Your task to perform on an android device: Clear the shopping cart on bestbuy. Search for "razer huntsman" on bestbuy, select the first entry, add it to the cart, then select checkout. Image 0: 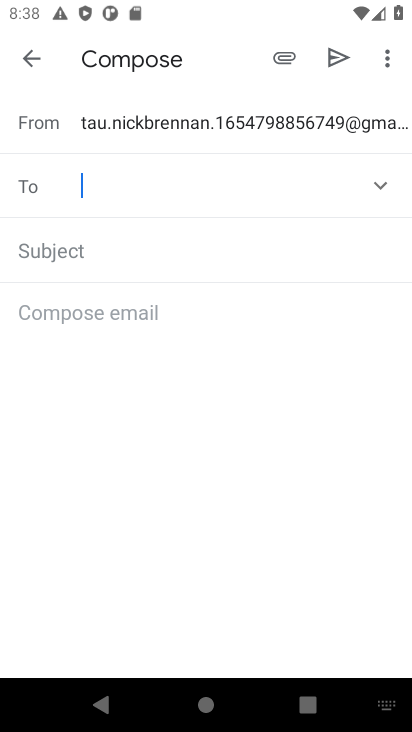
Step 0: press home button
Your task to perform on an android device: Clear the shopping cart on bestbuy. Search for "razer huntsman" on bestbuy, select the first entry, add it to the cart, then select checkout. Image 1: 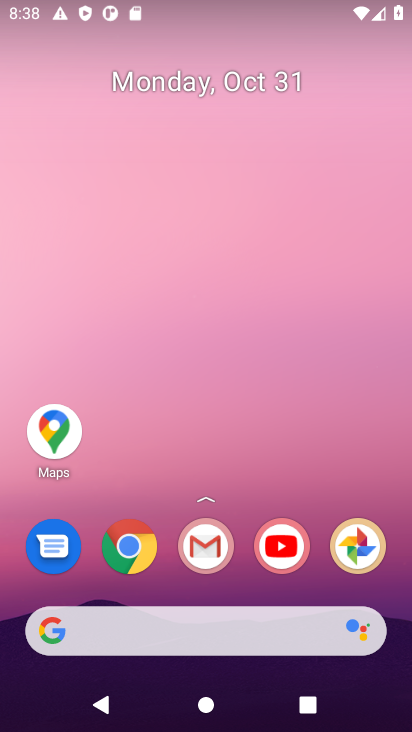
Step 1: click (133, 543)
Your task to perform on an android device: Clear the shopping cart on bestbuy. Search for "razer huntsman" on bestbuy, select the first entry, add it to the cart, then select checkout. Image 2: 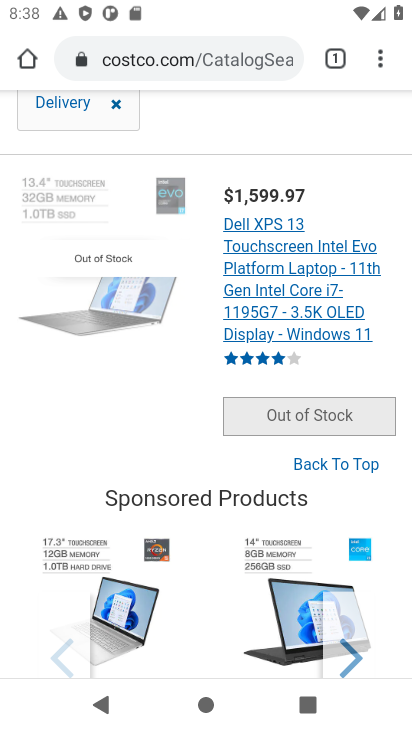
Step 2: click (186, 64)
Your task to perform on an android device: Clear the shopping cart on bestbuy. Search for "razer huntsman" on bestbuy, select the first entry, add it to the cart, then select checkout. Image 3: 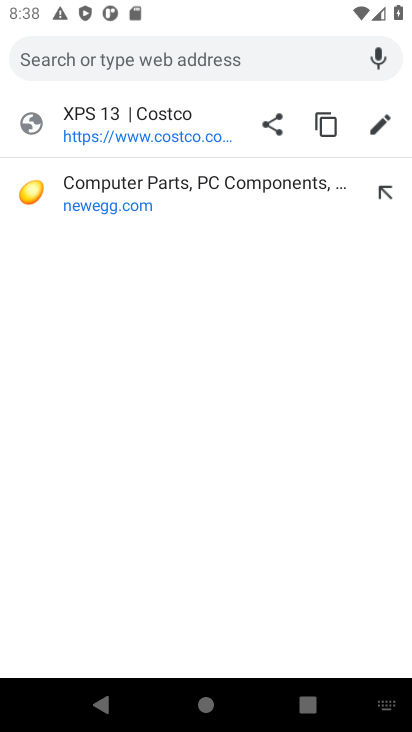
Step 3: type "bestbuy."
Your task to perform on an android device: Clear the shopping cart on bestbuy. Search for "razer huntsman" on bestbuy, select the first entry, add it to the cart, then select checkout. Image 4: 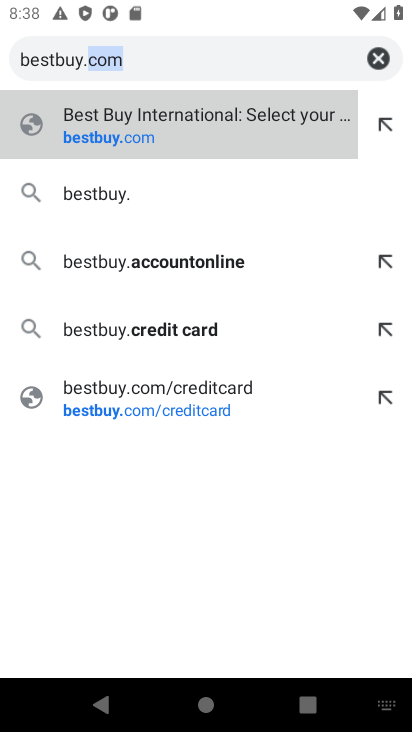
Step 4: press enter
Your task to perform on an android device: Clear the shopping cart on bestbuy. Search for "razer huntsman" on bestbuy, select the first entry, add it to the cart, then select checkout. Image 5: 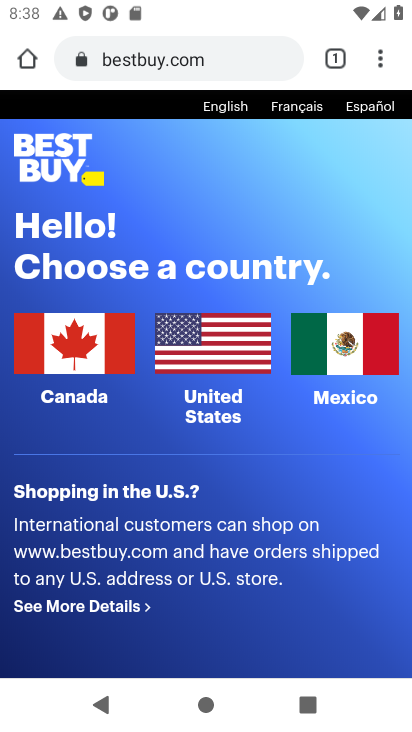
Step 5: click (216, 365)
Your task to perform on an android device: Clear the shopping cart on bestbuy. Search for "razer huntsman" on bestbuy, select the first entry, add it to the cart, then select checkout. Image 6: 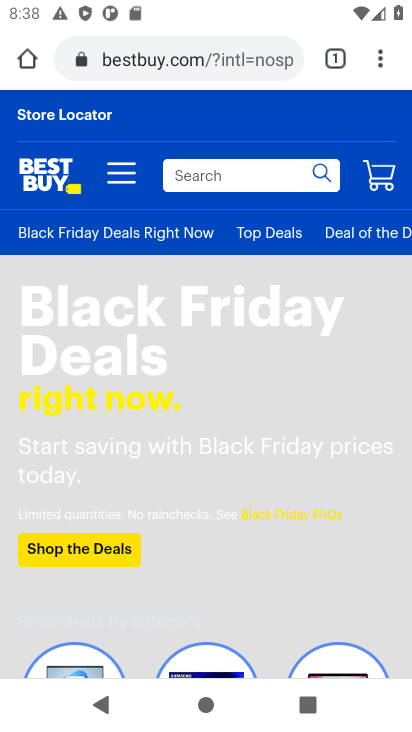
Step 6: drag from (227, 566) to (204, 343)
Your task to perform on an android device: Clear the shopping cart on bestbuy. Search for "razer huntsman" on bestbuy, select the first entry, add it to the cart, then select checkout. Image 7: 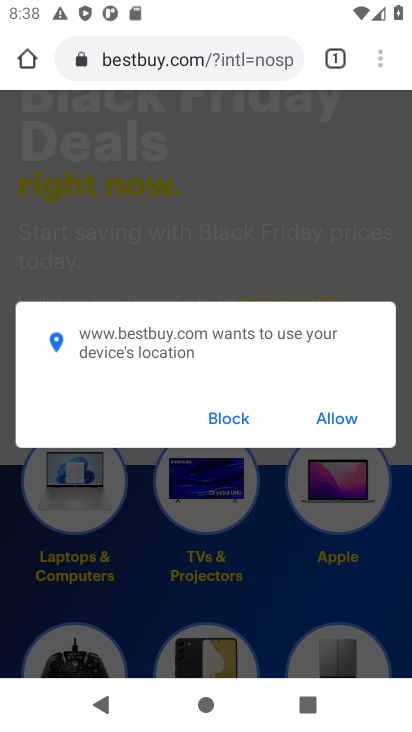
Step 7: click (222, 421)
Your task to perform on an android device: Clear the shopping cart on bestbuy. Search for "razer huntsman" on bestbuy, select the first entry, add it to the cart, then select checkout. Image 8: 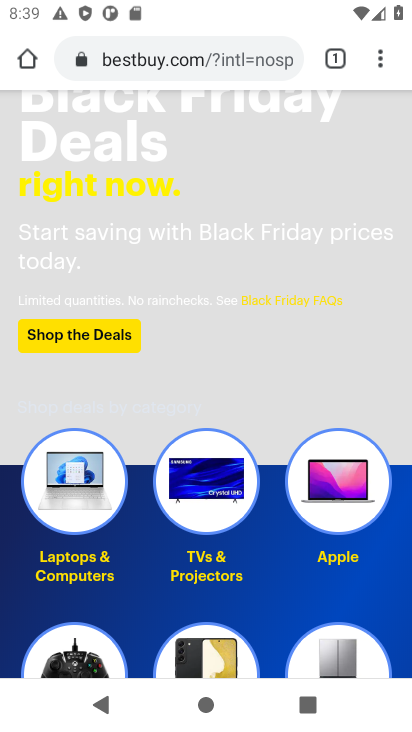
Step 8: drag from (247, 341) to (242, 559)
Your task to perform on an android device: Clear the shopping cart on bestbuy. Search for "razer huntsman" on bestbuy, select the first entry, add it to the cart, then select checkout. Image 9: 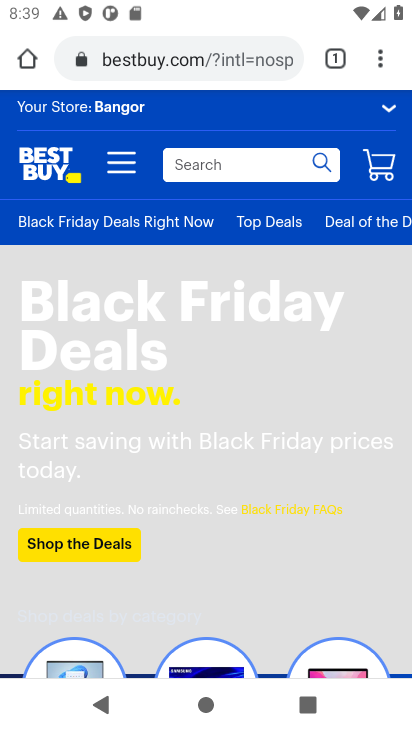
Step 9: click (378, 175)
Your task to perform on an android device: Clear the shopping cart on bestbuy. Search for "razer huntsman" on bestbuy, select the first entry, add it to the cart, then select checkout. Image 10: 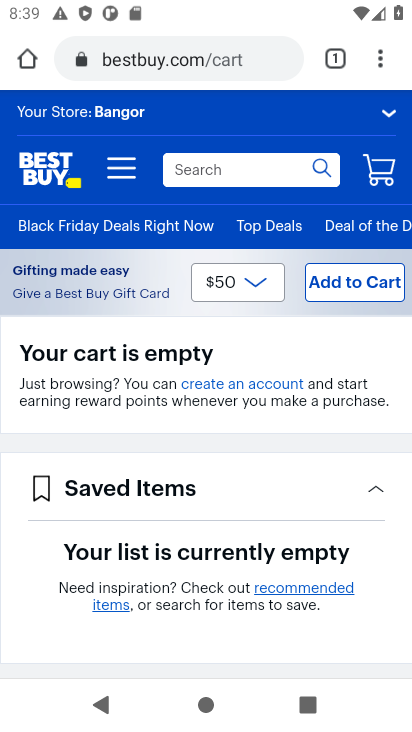
Step 10: click (273, 168)
Your task to perform on an android device: Clear the shopping cart on bestbuy. Search for "razer huntsman" on bestbuy, select the first entry, add it to the cart, then select checkout. Image 11: 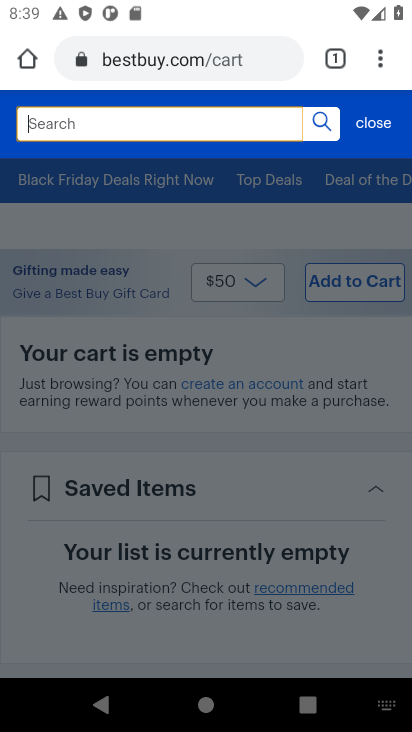
Step 11: type "razer huntsman"
Your task to perform on an android device: Clear the shopping cart on bestbuy. Search for "razer huntsman" on bestbuy, select the first entry, add it to the cart, then select checkout. Image 12: 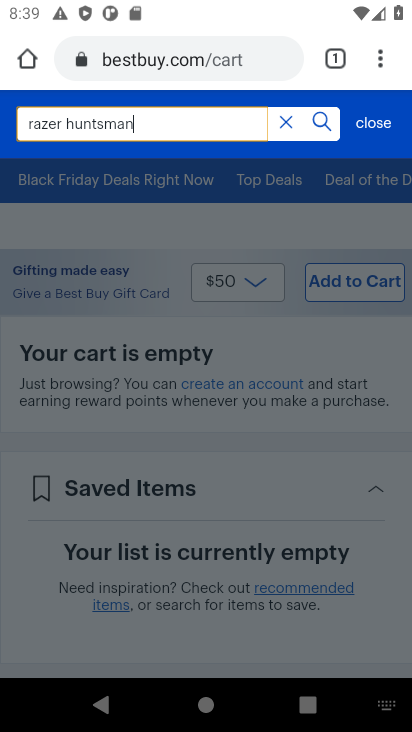
Step 12: press enter
Your task to perform on an android device: Clear the shopping cart on bestbuy. Search for "razer huntsman" on bestbuy, select the first entry, add it to the cart, then select checkout. Image 13: 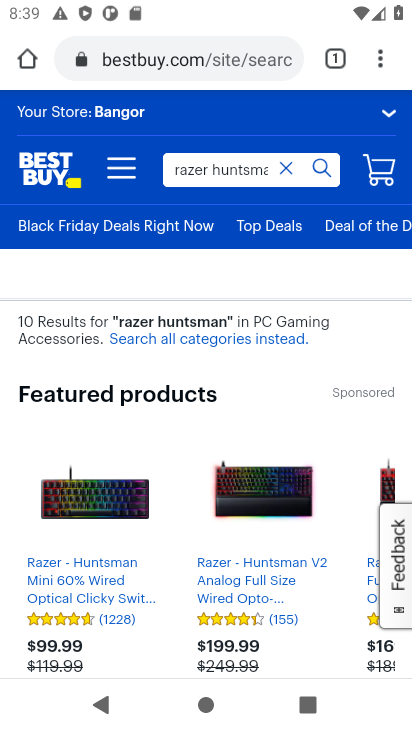
Step 13: click (93, 581)
Your task to perform on an android device: Clear the shopping cart on bestbuy. Search for "razer huntsman" on bestbuy, select the first entry, add it to the cart, then select checkout. Image 14: 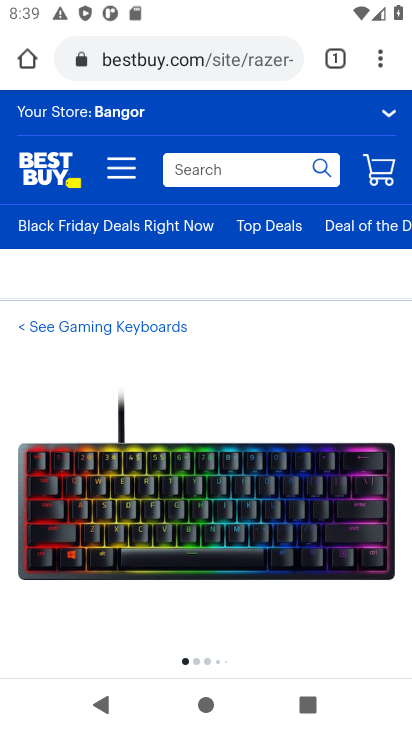
Step 14: drag from (103, 611) to (146, 147)
Your task to perform on an android device: Clear the shopping cart on bestbuy. Search for "razer huntsman" on bestbuy, select the first entry, add it to the cart, then select checkout. Image 15: 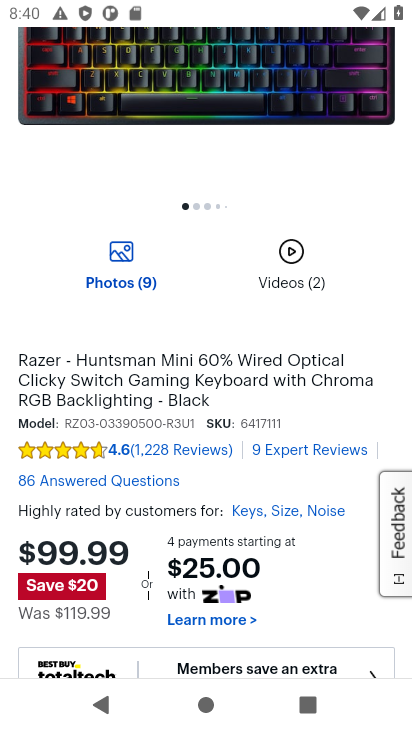
Step 15: drag from (102, 488) to (118, 258)
Your task to perform on an android device: Clear the shopping cart on bestbuy. Search for "razer huntsman" on bestbuy, select the first entry, add it to the cart, then select checkout. Image 16: 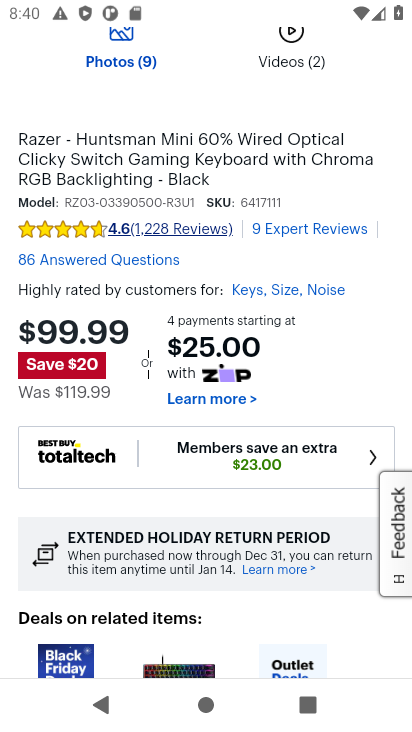
Step 16: drag from (211, 410) to (206, 227)
Your task to perform on an android device: Clear the shopping cart on bestbuy. Search for "razer huntsman" on bestbuy, select the first entry, add it to the cart, then select checkout. Image 17: 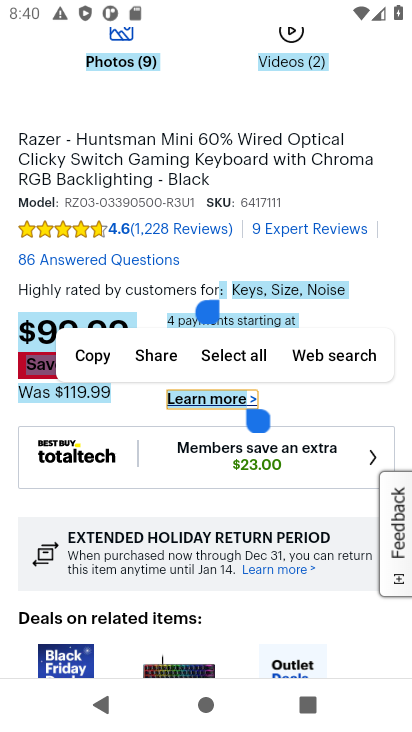
Step 17: drag from (201, 448) to (241, 239)
Your task to perform on an android device: Clear the shopping cart on bestbuy. Search for "razer huntsman" on bestbuy, select the first entry, add it to the cart, then select checkout. Image 18: 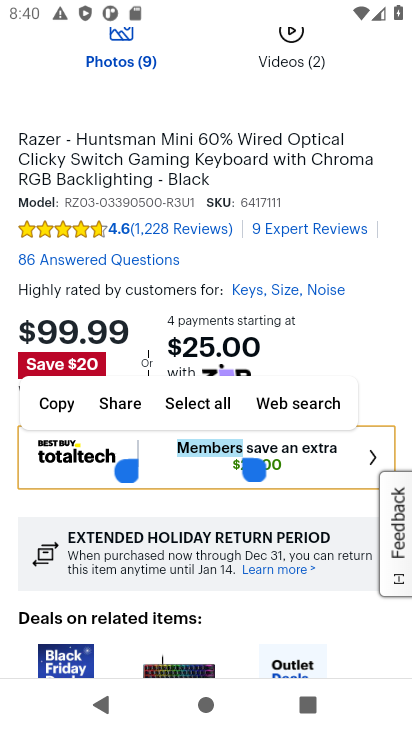
Step 18: drag from (251, 524) to (290, 126)
Your task to perform on an android device: Clear the shopping cart on bestbuy. Search for "razer huntsman" on bestbuy, select the first entry, add it to the cart, then select checkout. Image 19: 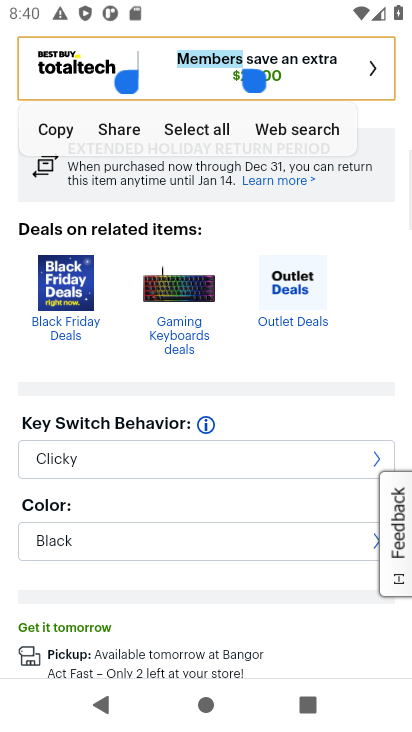
Step 19: drag from (257, 499) to (316, 238)
Your task to perform on an android device: Clear the shopping cart on bestbuy. Search for "razer huntsman" on bestbuy, select the first entry, add it to the cart, then select checkout. Image 20: 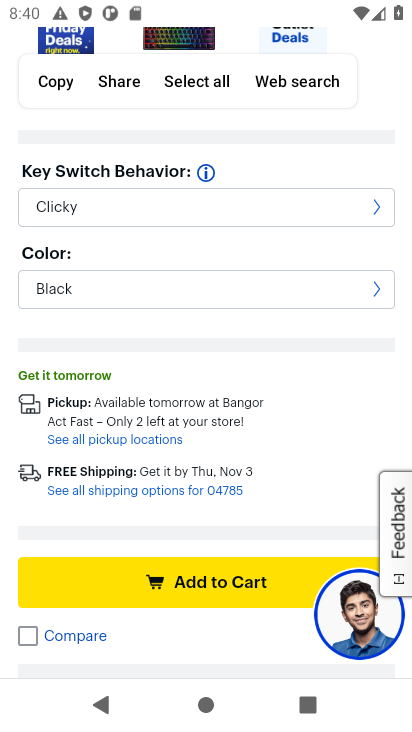
Step 20: click (229, 591)
Your task to perform on an android device: Clear the shopping cart on bestbuy. Search for "razer huntsman" on bestbuy, select the first entry, add it to the cart, then select checkout. Image 21: 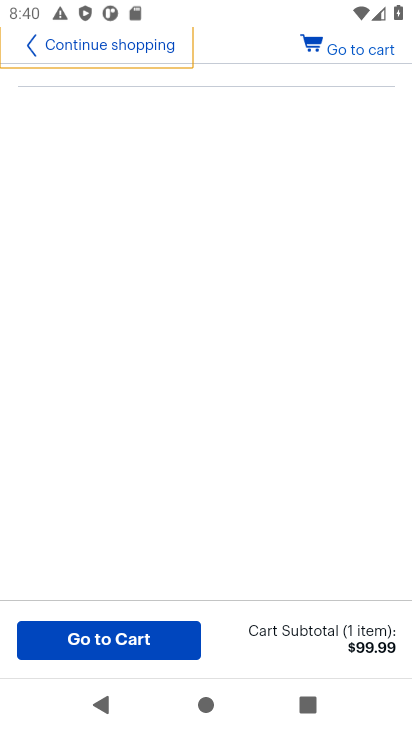
Step 21: drag from (357, 80) to (324, 286)
Your task to perform on an android device: Clear the shopping cart on bestbuy. Search for "razer huntsman" on bestbuy, select the first entry, add it to the cart, then select checkout. Image 22: 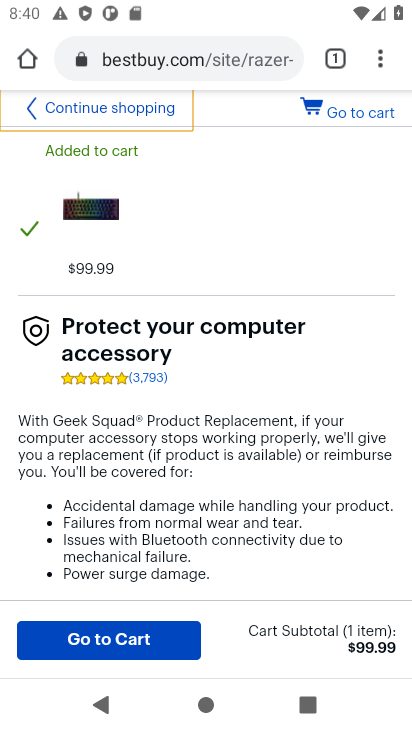
Step 22: click (142, 636)
Your task to perform on an android device: Clear the shopping cart on bestbuy. Search for "razer huntsman" on bestbuy, select the first entry, add it to the cart, then select checkout. Image 23: 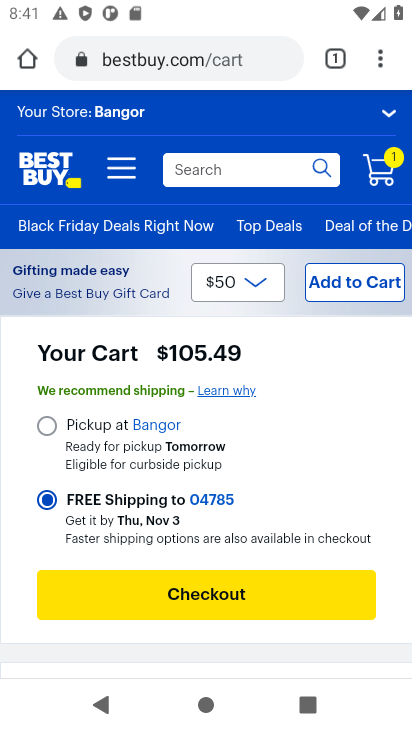
Step 23: click (153, 604)
Your task to perform on an android device: Clear the shopping cart on bestbuy. Search for "razer huntsman" on bestbuy, select the first entry, add it to the cart, then select checkout. Image 24: 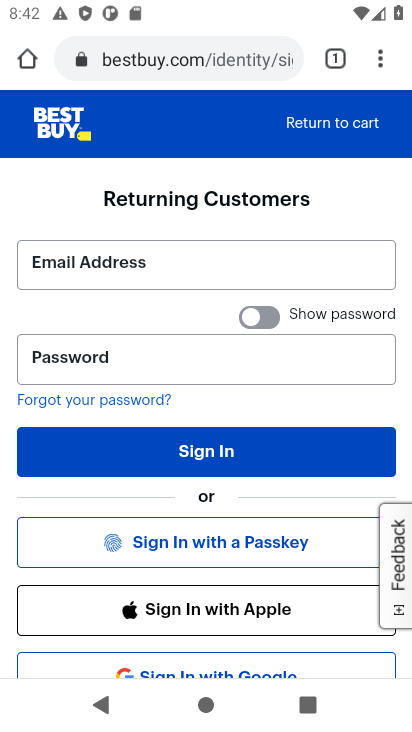
Step 24: task complete